Your task to perform on an android device: turn on sleep mode Image 0: 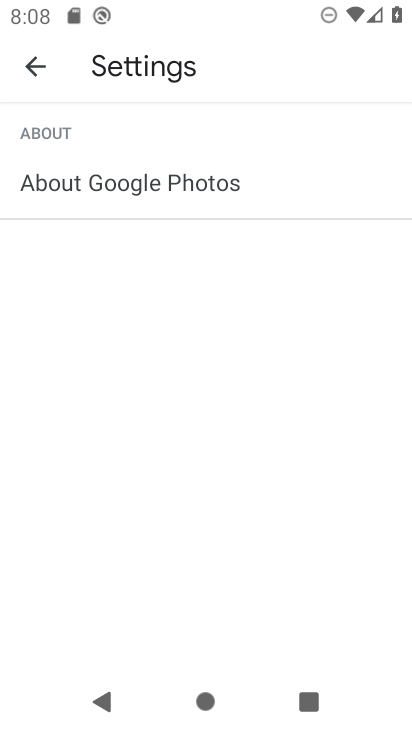
Step 0: press home button
Your task to perform on an android device: turn on sleep mode Image 1: 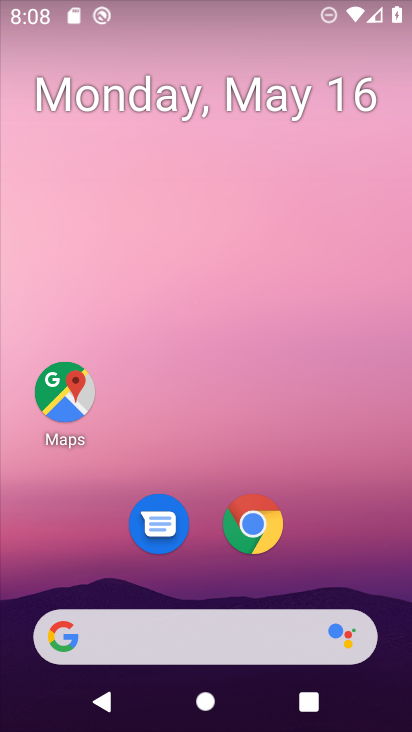
Step 1: drag from (186, 568) to (264, 53)
Your task to perform on an android device: turn on sleep mode Image 2: 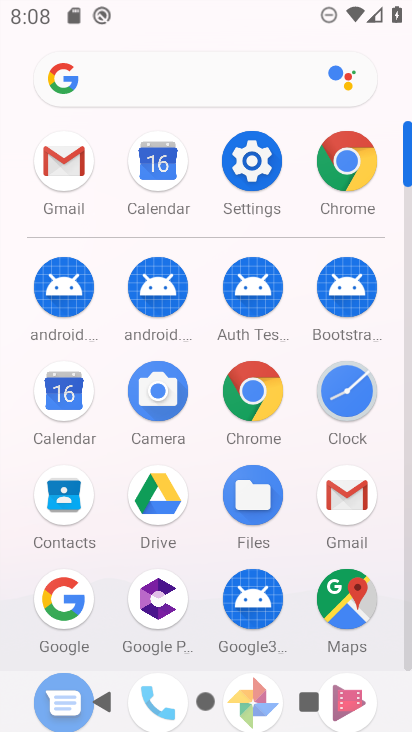
Step 2: click (253, 155)
Your task to perform on an android device: turn on sleep mode Image 3: 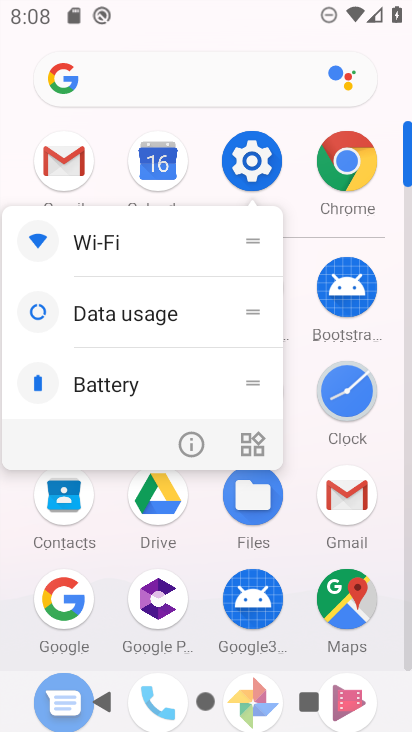
Step 3: click (263, 142)
Your task to perform on an android device: turn on sleep mode Image 4: 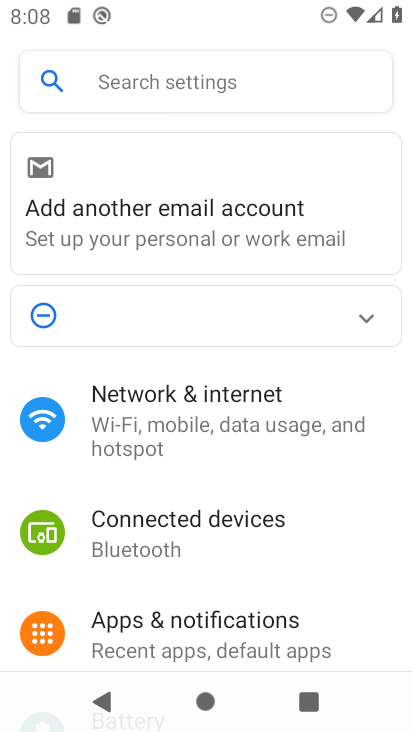
Step 4: drag from (193, 581) to (217, 154)
Your task to perform on an android device: turn on sleep mode Image 5: 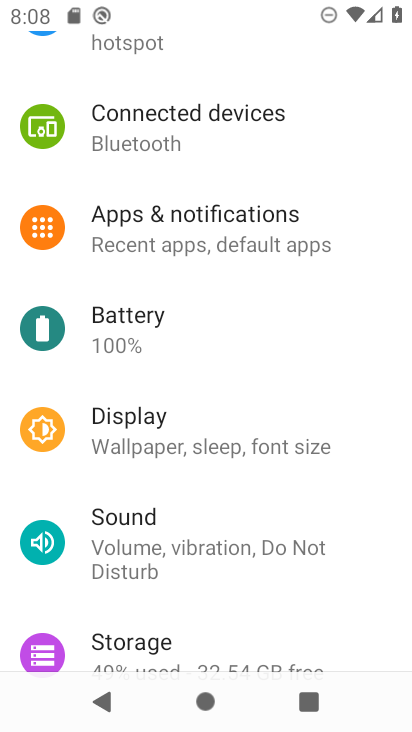
Step 5: click (208, 430)
Your task to perform on an android device: turn on sleep mode Image 6: 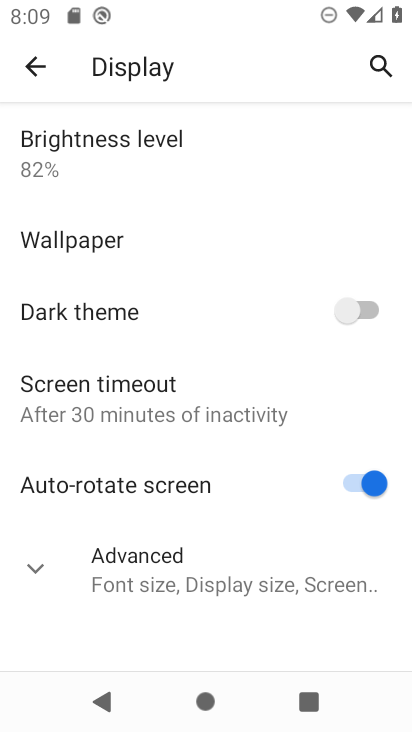
Step 6: click (26, 565)
Your task to perform on an android device: turn on sleep mode Image 7: 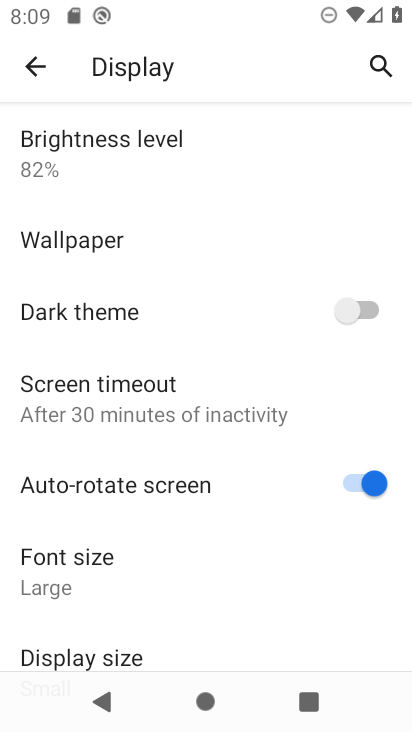
Step 7: task complete